Your task to perform on an android device: toggle notifications settings in the gmail app Image 0: 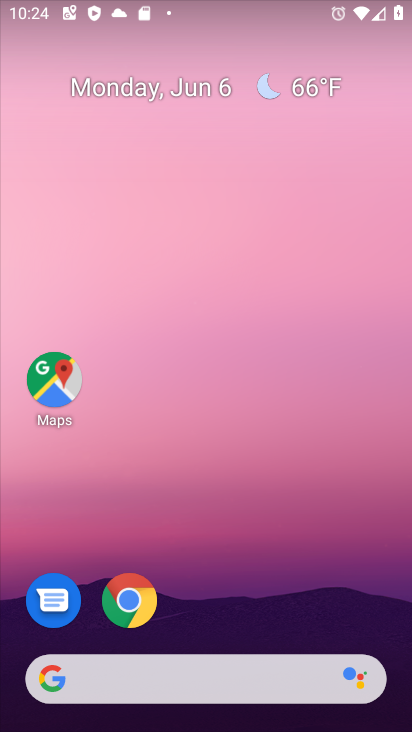
Step 0: drag from (40, 552) to (296, 64)
Your task to perform on an android device: toggle notifications settings in the gmail app Image 1: 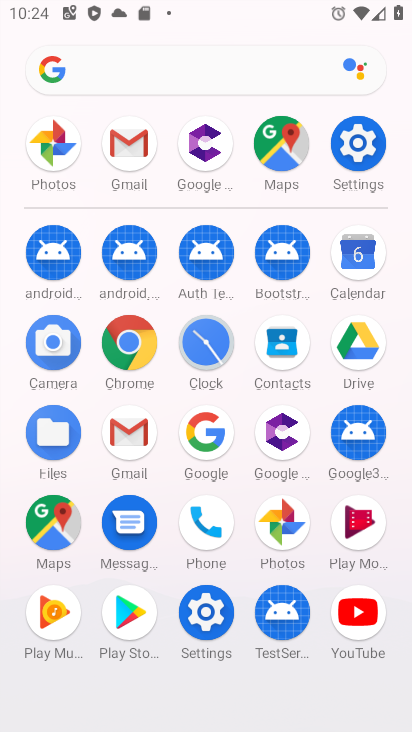
Step 1: click (128, 416)
Your task to perform on an android device: toggle notifications settings in the gmail app Image 2: 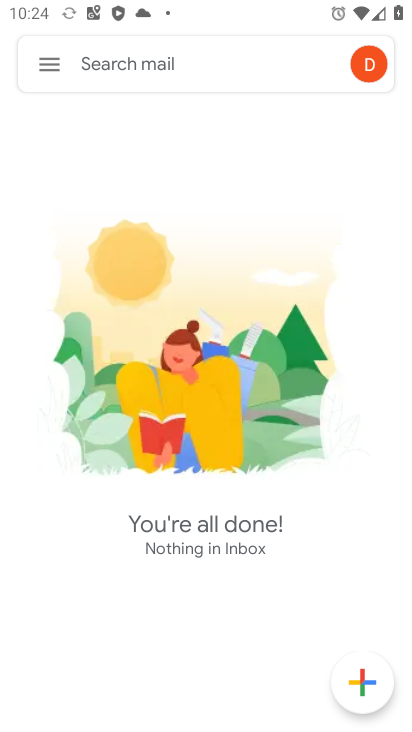
Step 2: click (36, 61)
Your task to perform on an android device: toggle notifications settings in the gmail app Image 3: 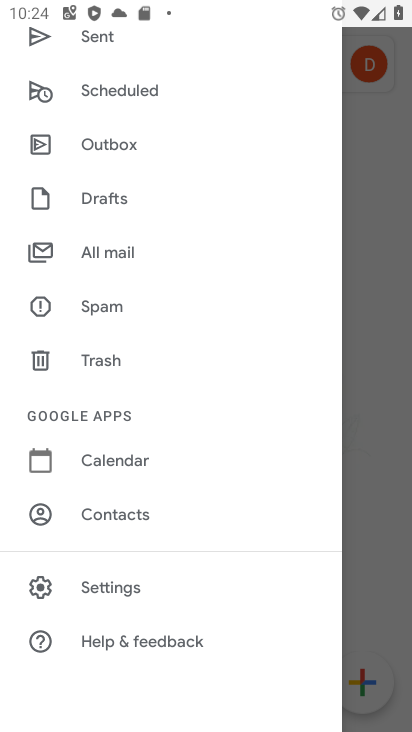
Step 3: click (135, 586)
Your task to perform on an android device: toggle notifications settings in the gmail app Image 4: 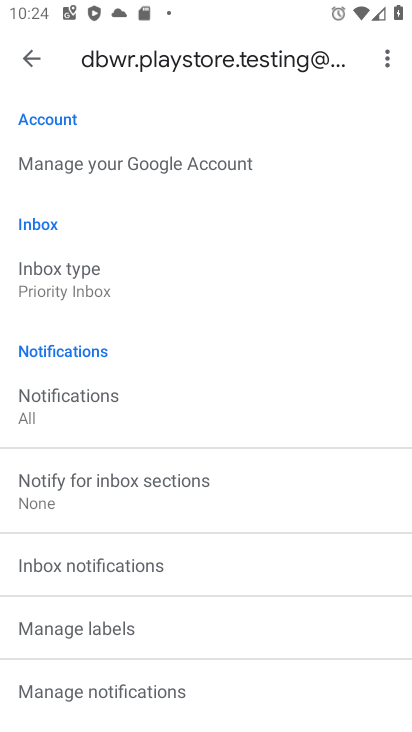
Step 4: click (151, 560)
Your task to perform on an android device: toggle notifications settings in the gmail app Image 5: 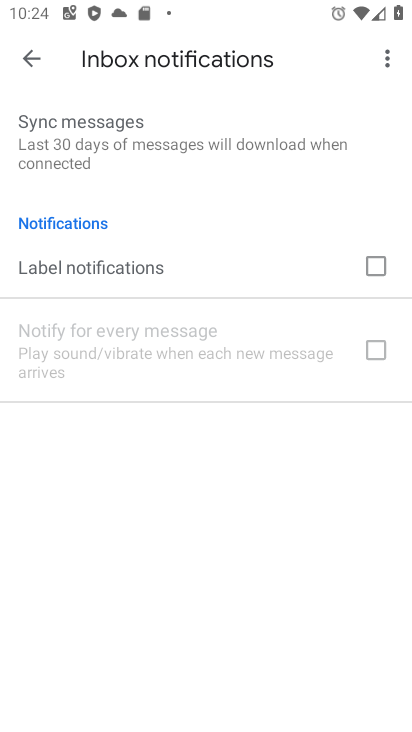
Step 5: press back button
Your task to perform on an android device: toggle notifications settings in the gmail app Image 6: 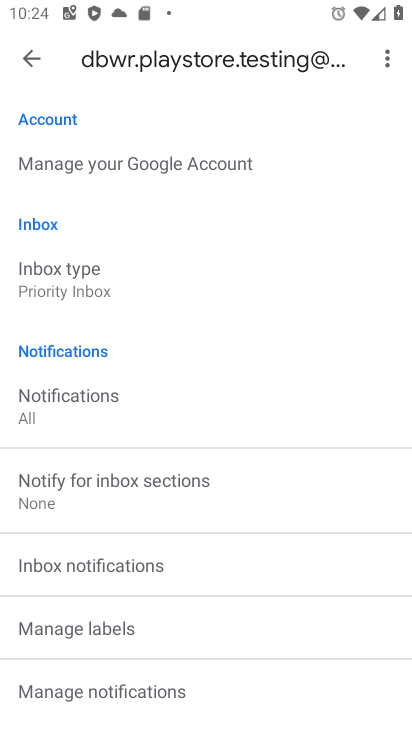
Step 6: click (90, 688)
Your task to perform on an android device: toggle notifications settings in the gmail app Image 7: 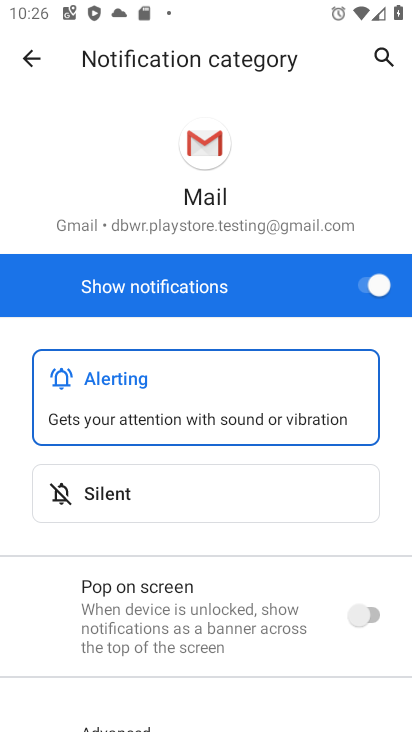
Step 7: task complete